Your task to perform on an android device: turn on the 24-hour format for clock Image 0: 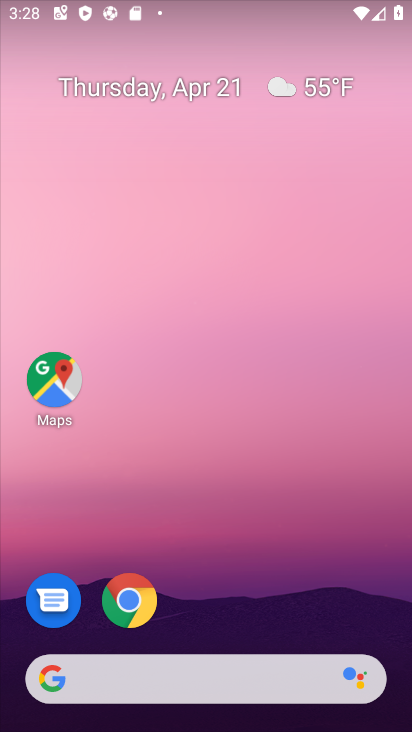
Step 0: drag from (306, 605) to (314, 109)
Your task to perform on an android device: turn on the 24-hour format for clock Image 1: 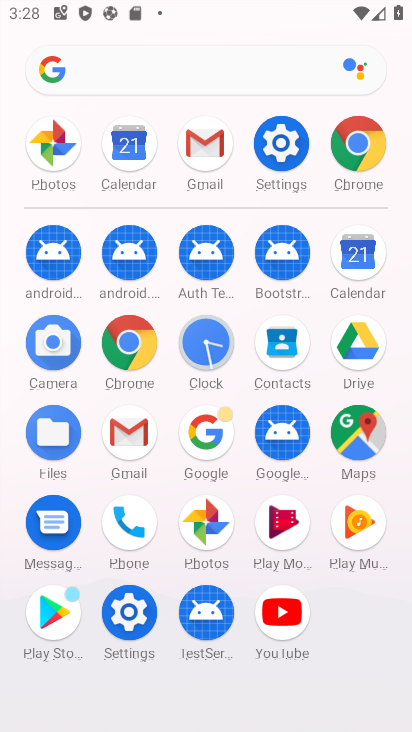
Step 1: click (204, 347)
Your task to perform on an android device: turn on the 24-hour format for clock Image 2: 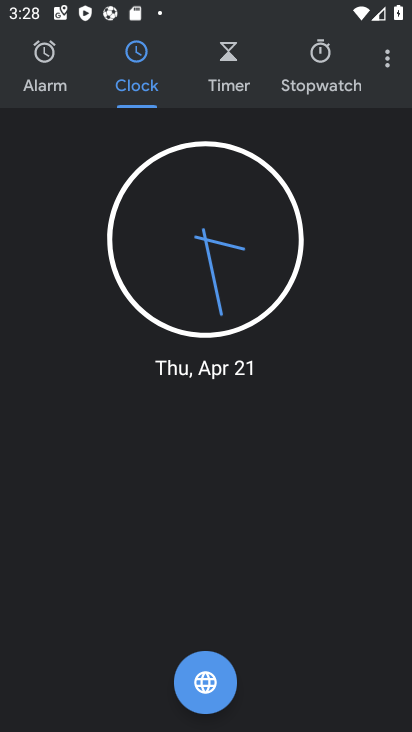
Step 2: click (390, 52)
Your task to perform on an android device: turn on the 24-hour format for clock Image 3: 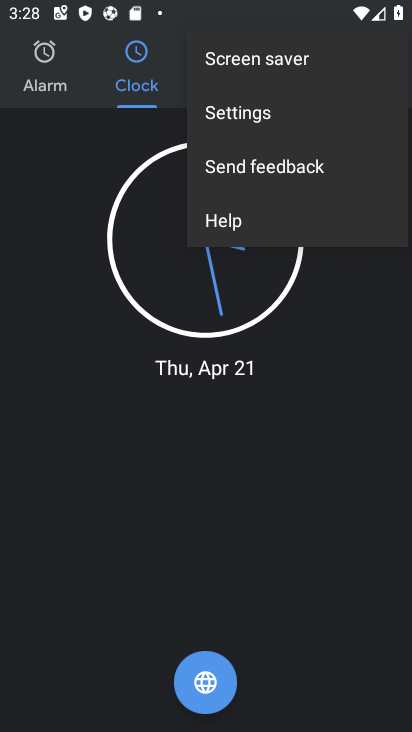
Step 3: click (336, 106)
Your task to perform on an android device: turn on the 24-hour format for clock Image 4: 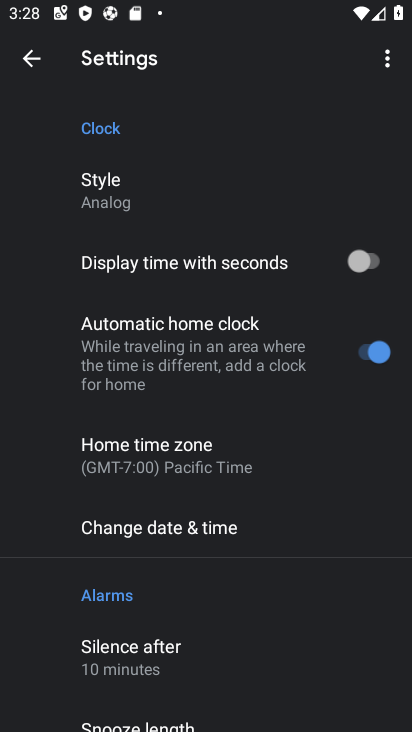
Step 4: drag from (223, 622) to (244, 521)
Your task to perform on an android device: turn on the 24-hour format for clock Image 5: 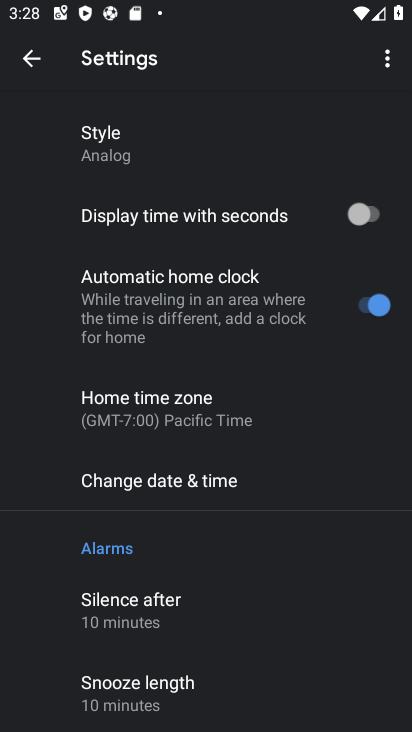
Step 5: click (242, 484)
Your task to perform on an android device: turn on the 24-hour format for clock Image 6: 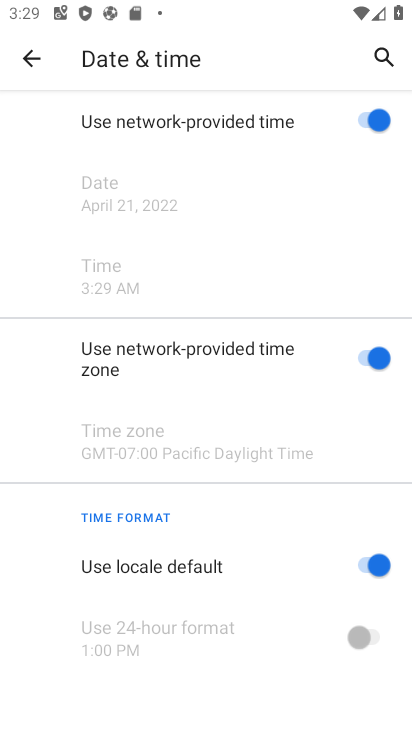
Step 6: click (376, 564)
Your task to perform on an android device: turn on the 24-hour format for clock Image 7: 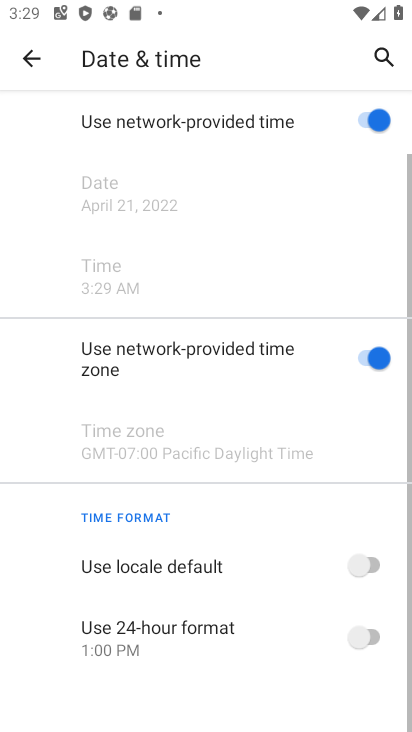
Step 7: click (364, 634)
Your task to perform on an android device: turn on the 24-hour format for clock Image 8: 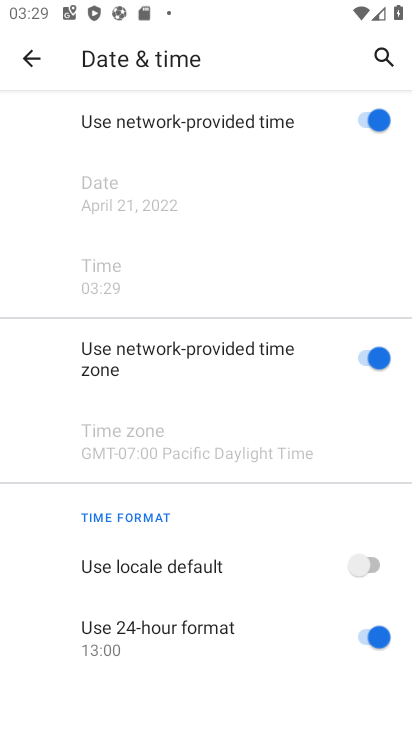
Step 8: task complete